Your task to perform on an android device: toggle pop-ups in chrome Image 0: 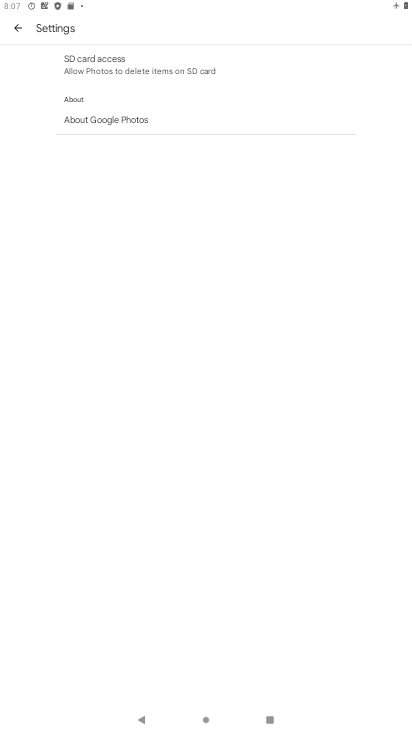
Step 0: press home button
Your task to perform on an android device: toggle pop-ups in chrome Image 1: 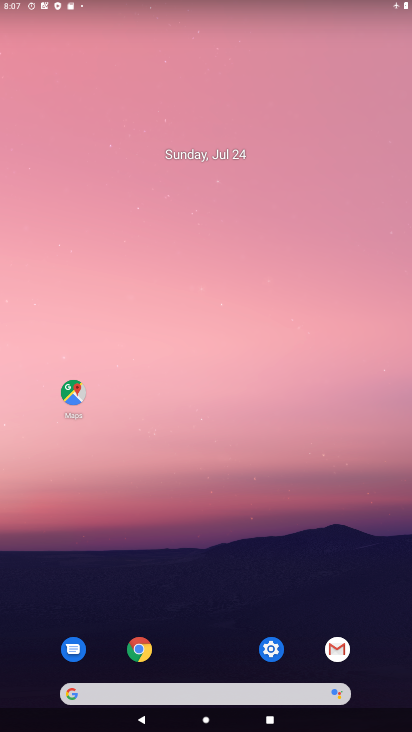
Step 1: click (147, 646)
Your task to perform on an android device: toggle pop-ups in chrome Image 2: 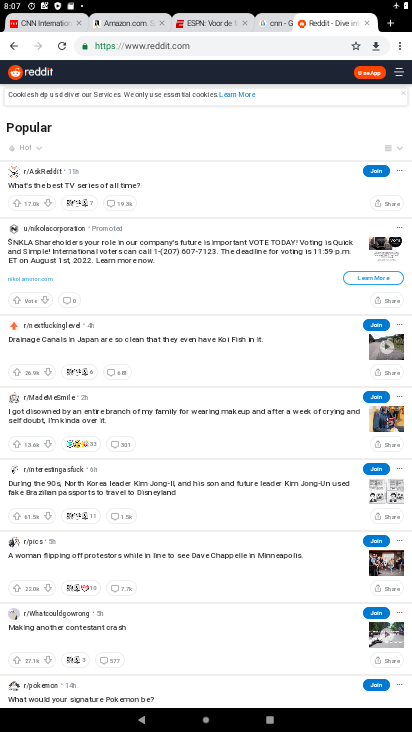
Step 2: click (404, 49)
Your task to perform on an android device: toggle pop-ups in chrome Image 3: 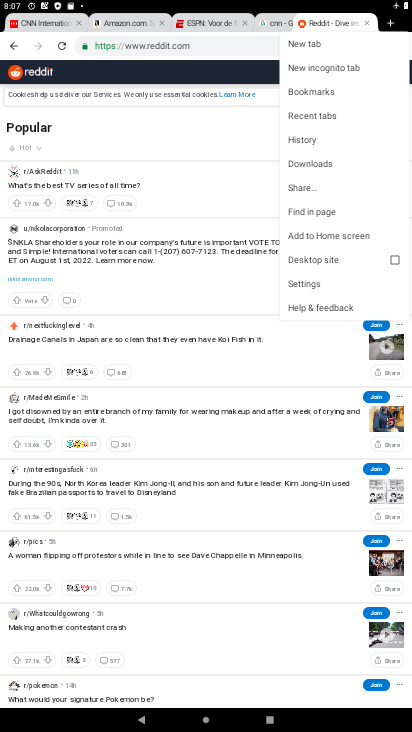
Step 3: click (313, 277)
Your task to perform on an android device: toggle pop-ups in chrome Image 4: 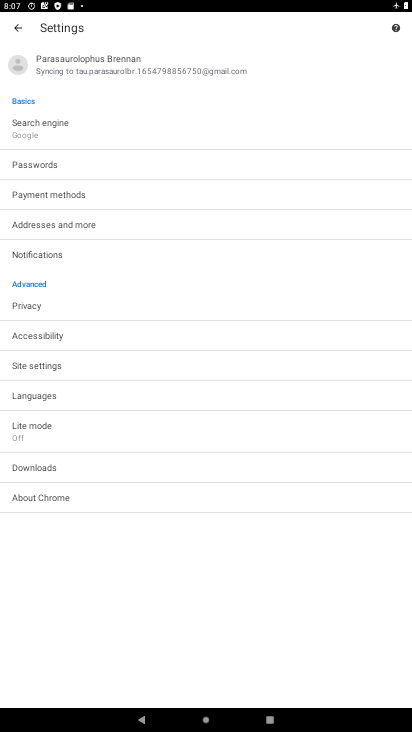
Step 4: click (58, 358)
Your task to perform on an android device: toggle pop-ups in chrome Image 5: 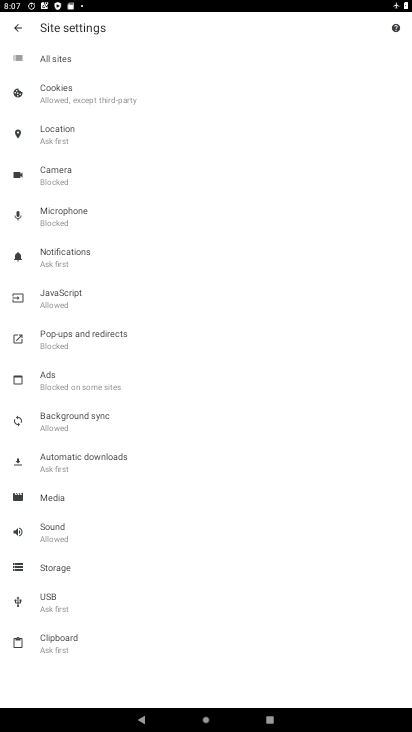
Step 5: click (88, 336)
Your task to perform on an android device: toggle pop-ups in chrome Image 6: 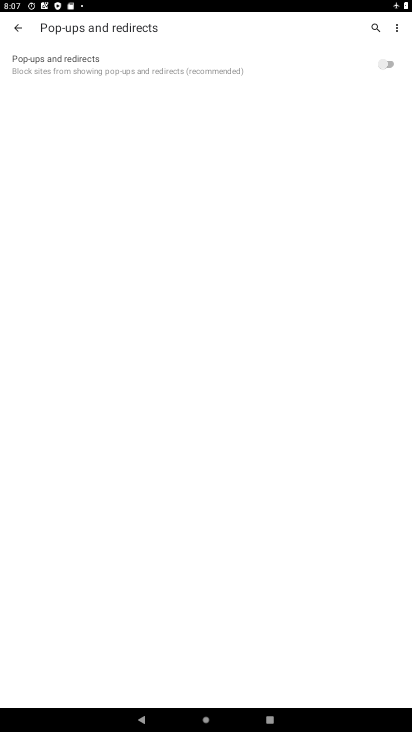
Step 6: click (378, 66)
Your task to perform on an android device: toggle pop-ups in chrome Image 7: 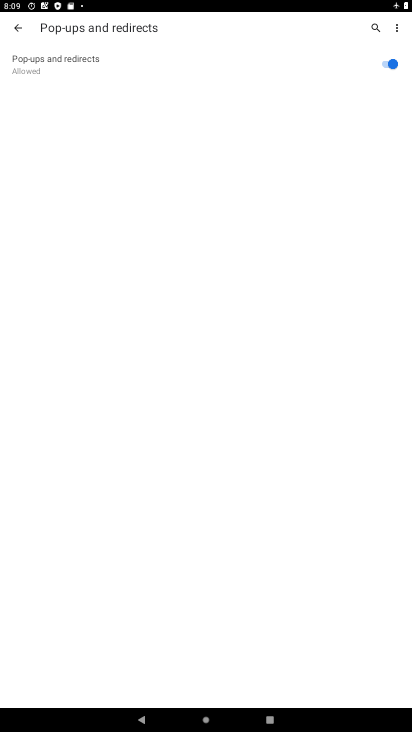
Step 7: task complete